Your task to perform on an android device: What's the weather? Image 0: 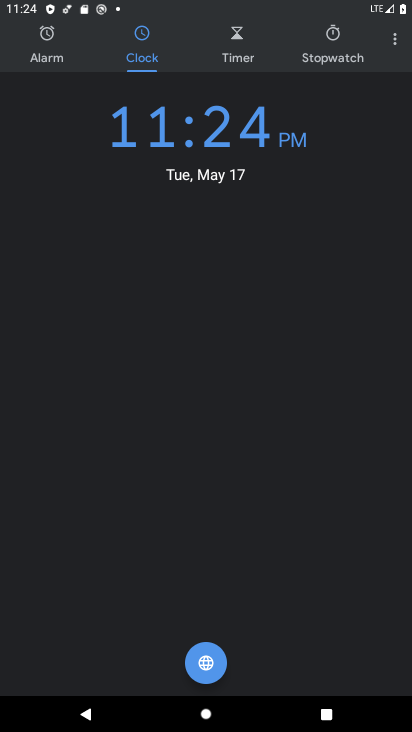
Step 0: press home button
Your task to perform on an android device: What's the weather? Image 1: 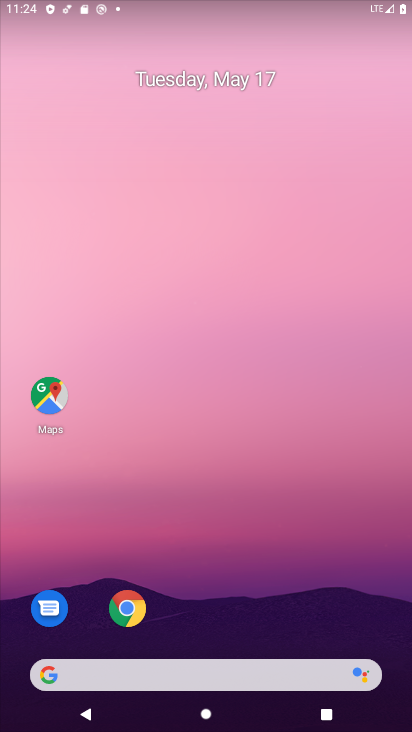
Step 1: drag from (234, 430) to (195, 65)
Your task to perform on an android device: What's the weather? Image 2: 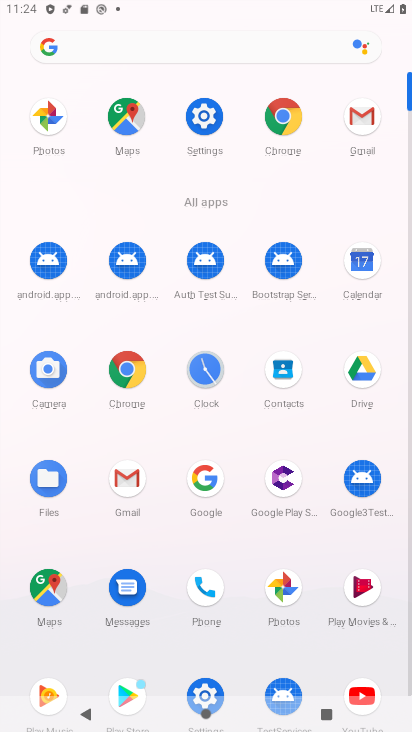
Step 2: click (201, 476)
Your task to perform on an android device: What's the weather? Image 3: 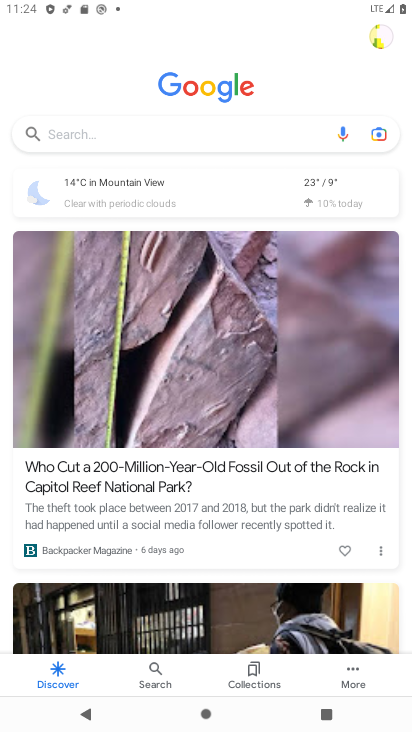
Step 3: click (140, 135)
Your task to perform on an android device: What's the weather? Image 4: 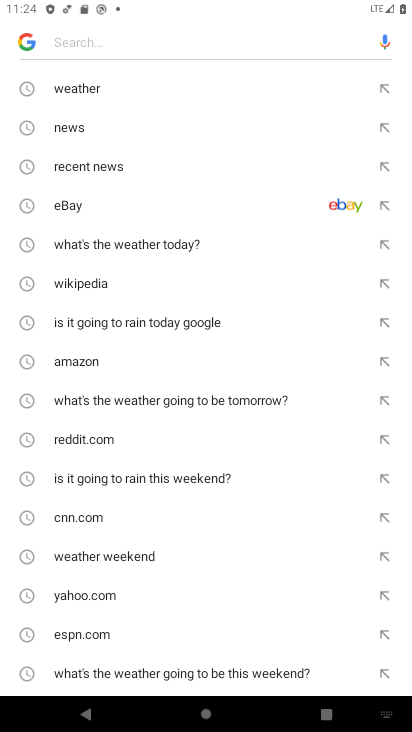
Step 4: click (94, 84)
Your task to perform on an android device: What's the weather? Image 5: 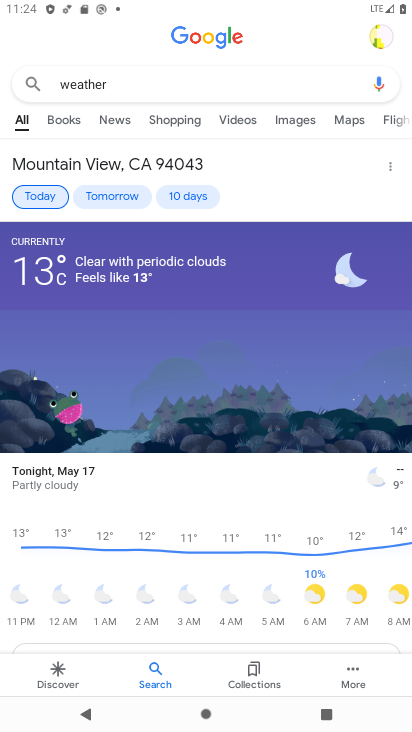
Step 5: task complete